Your task to perform on an android device: turn pop-ups on in chrome Image 0: 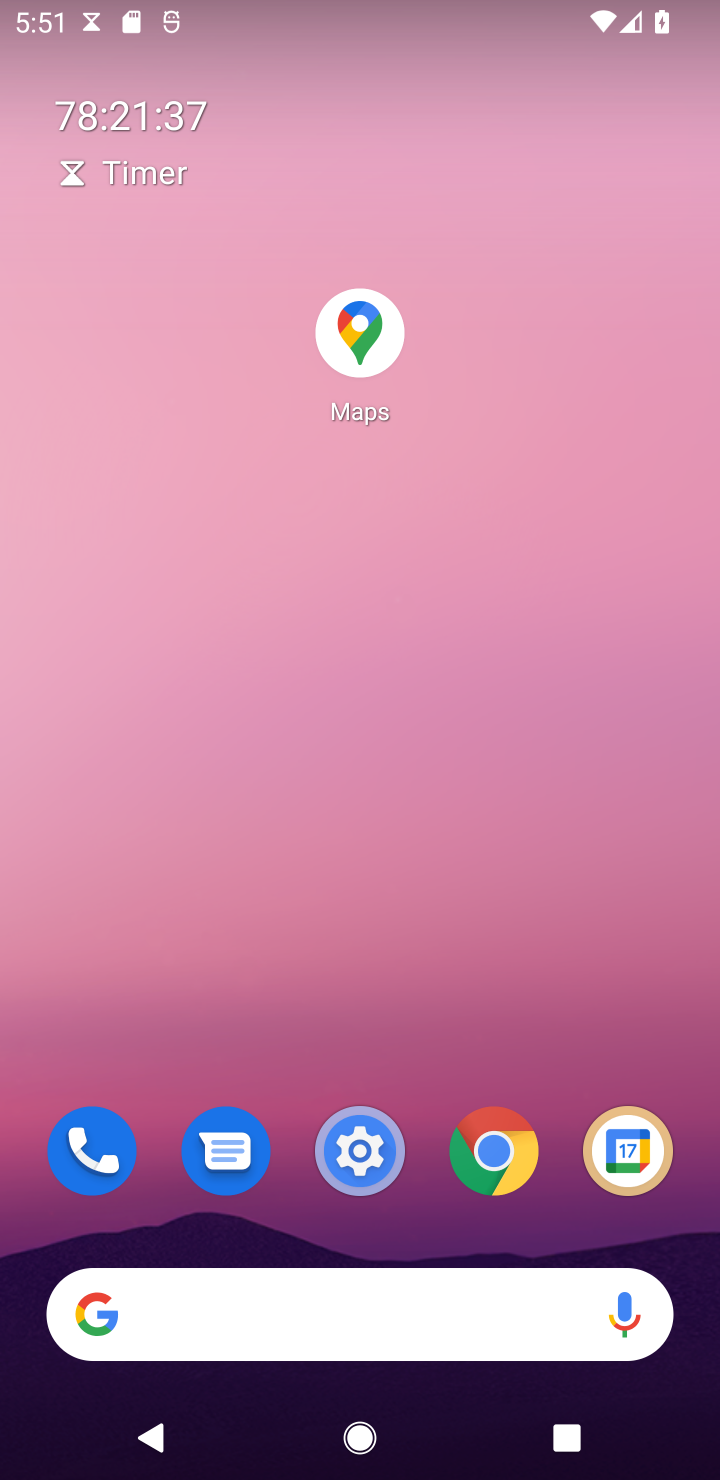
Step 0: click (508, 1172)
Your task to perform on an android device: turn pop-ups on in chrome Image 1: 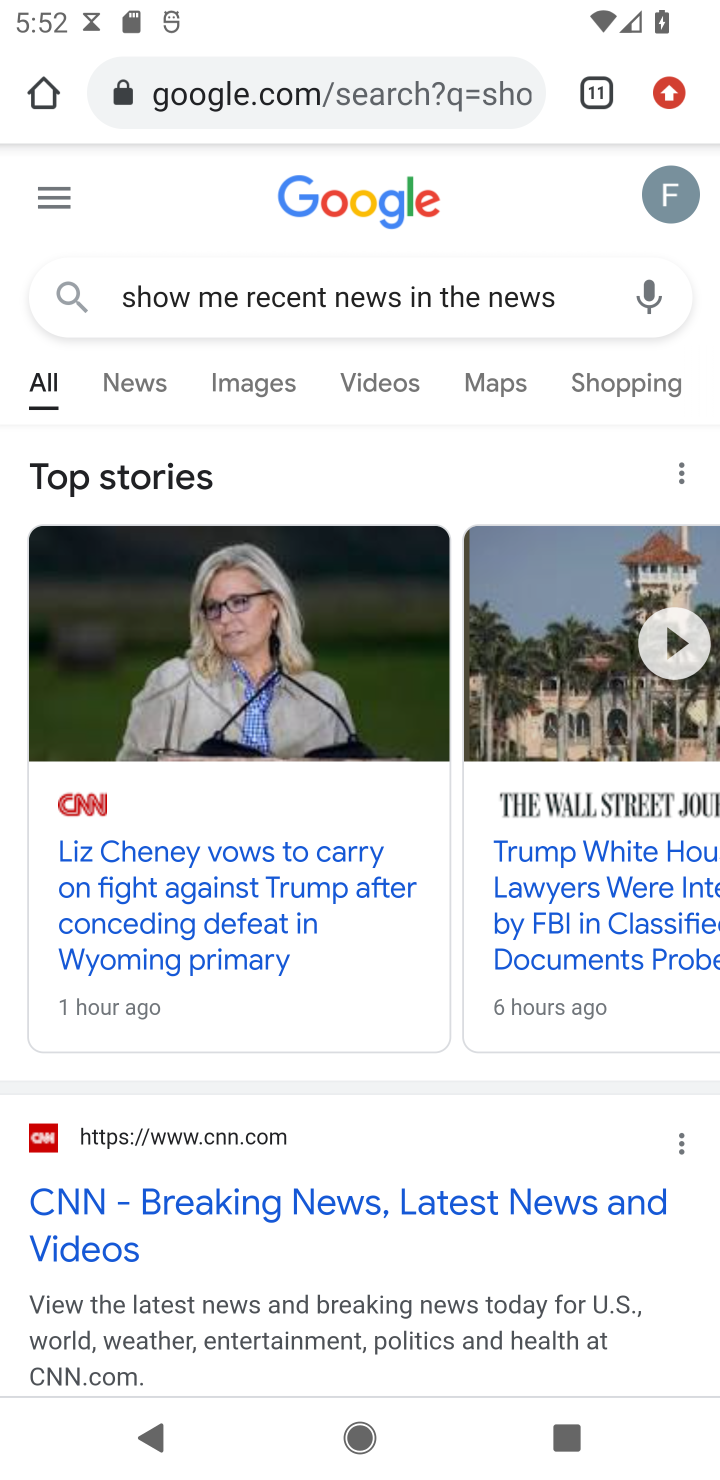
Step 1: click (669, 86)
Your task to perform on an android device: turn pop-ups on in chrome Image 2: 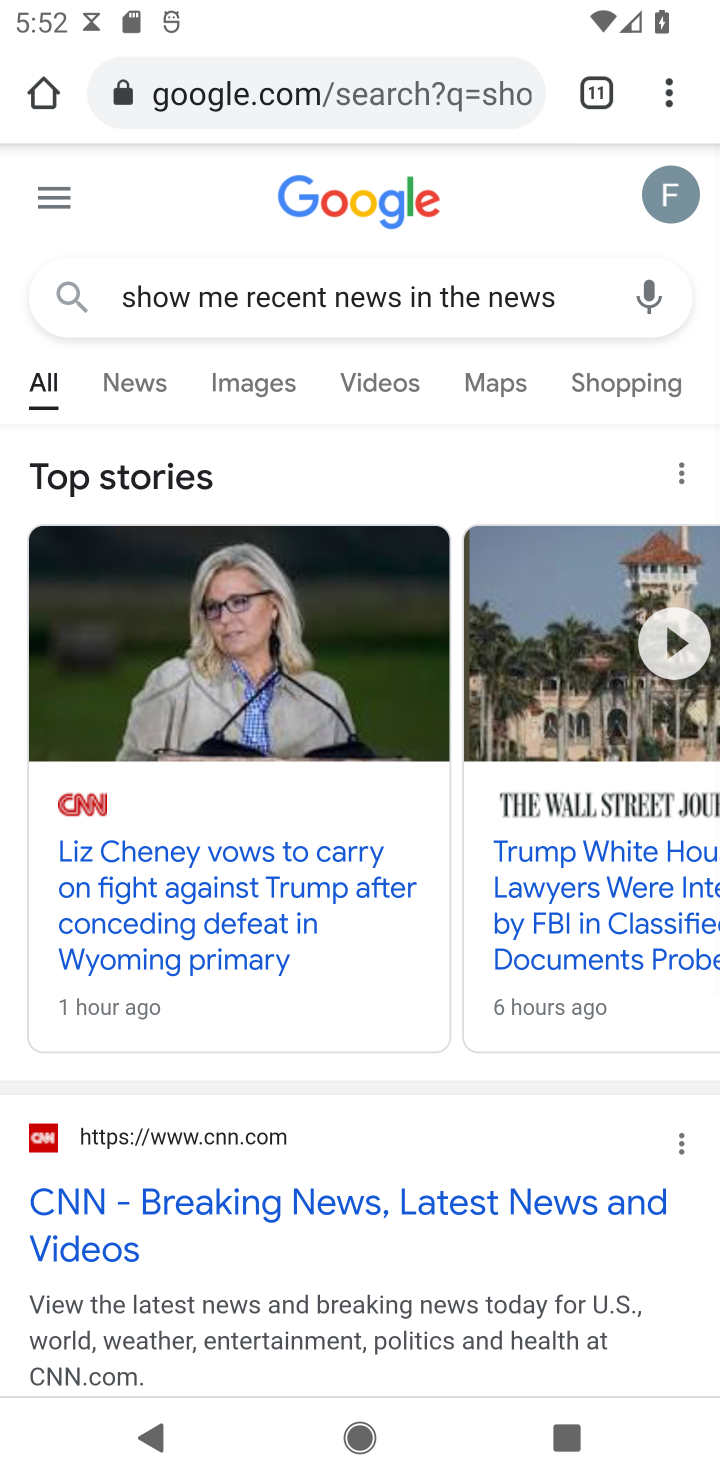
Step 2: click (669, 86)
Your task to perform on an android device: turn pop-ups on in chrome Image 3: 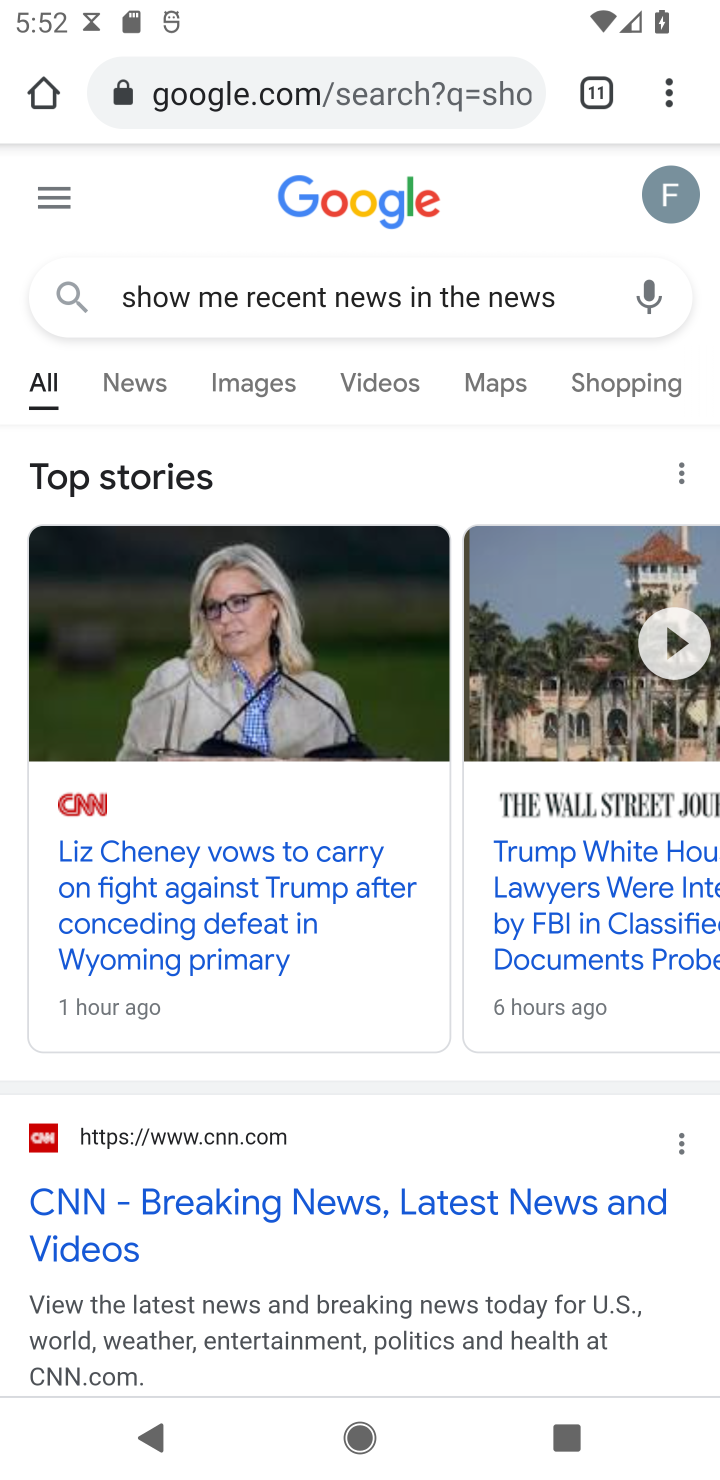
Step 3: click (676, 112)
Your task to perform on an android device: turn pop-ups on in chrome Image 4: 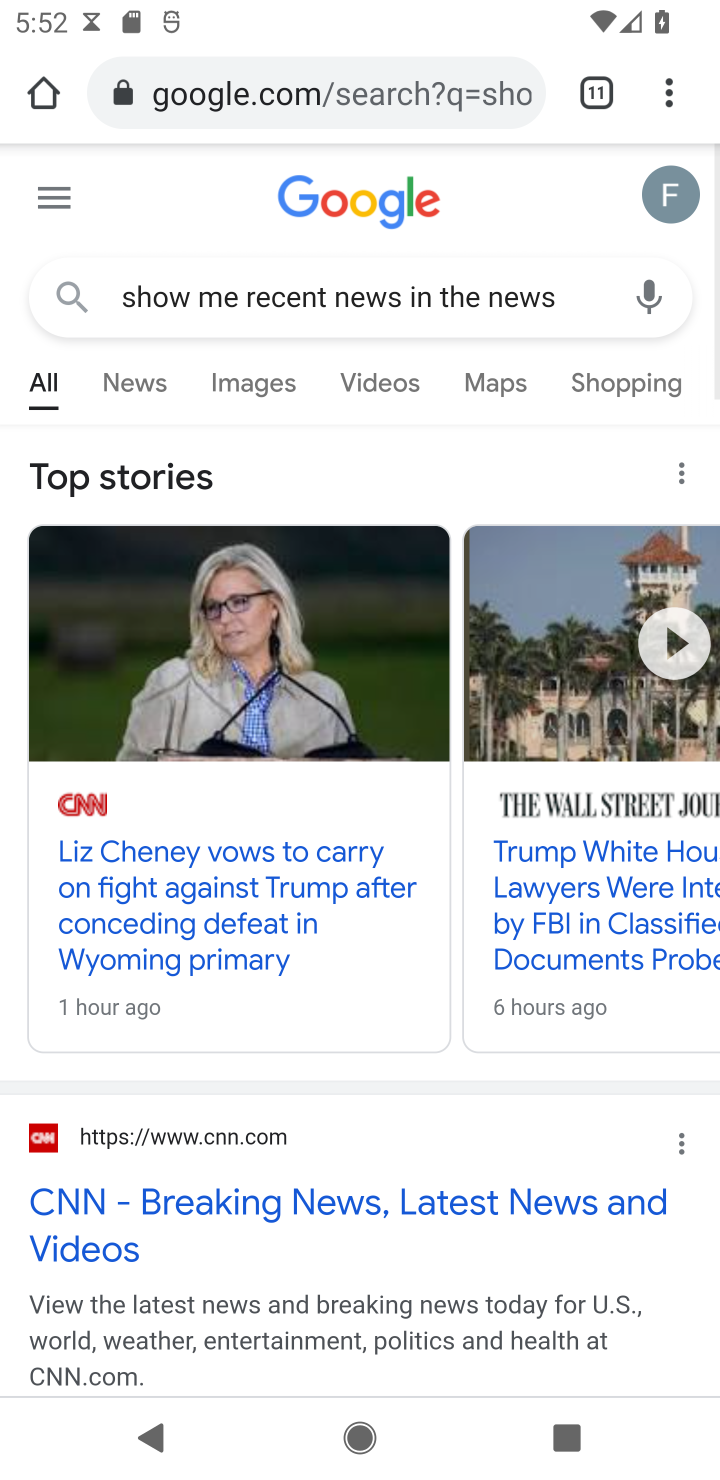
Step 4: click (666, 86)
Your task to perform on an android device: turn pop-ups on in chrome Image 5: 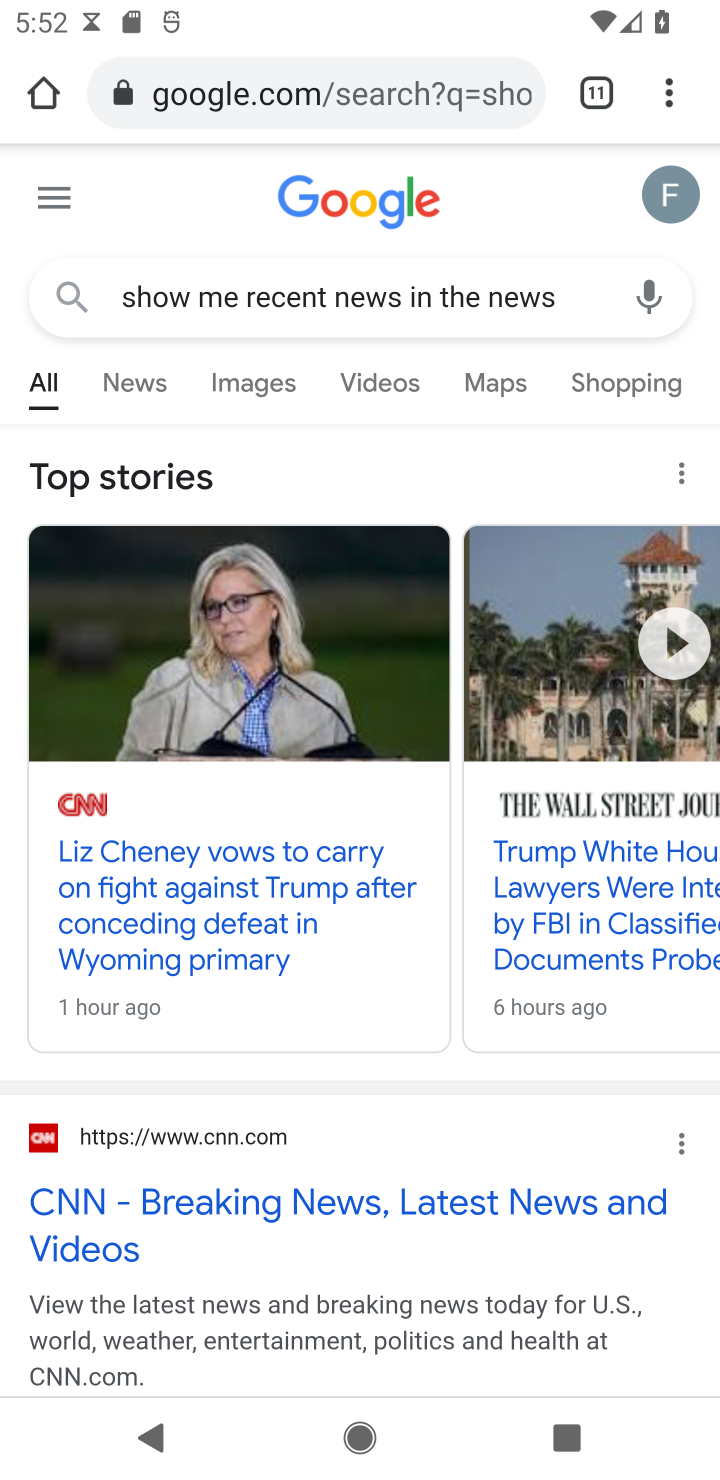
Step 5: click (675, 89)
Your task to perform on an android device: turn pop-ups on in chrome Image 6: 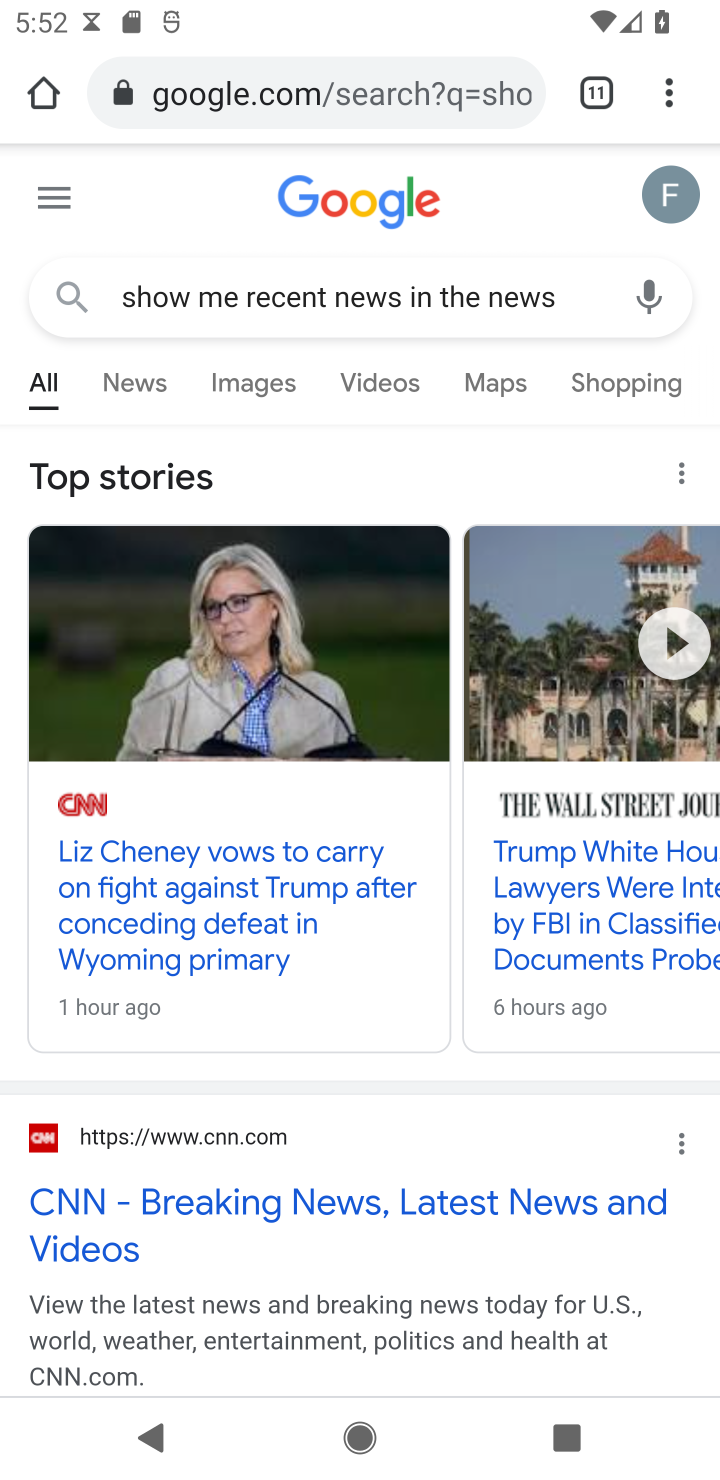
Step 6: click (673, 96)
Your task to perform on an android device: turn pop-ups on in chrome Image 7: 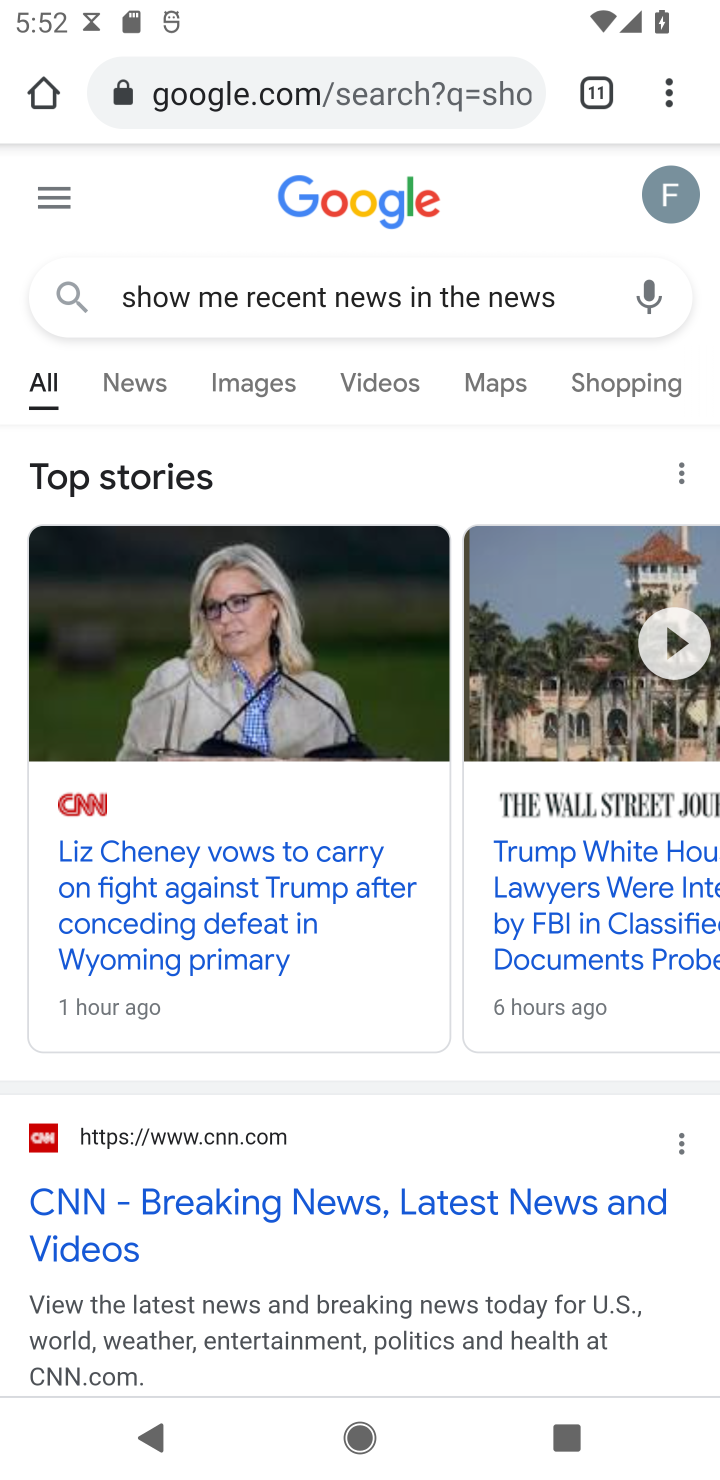
Step 7: click (673, 96)
Your task to perform on an android device: turn pop-ups on in chrome Image 8: 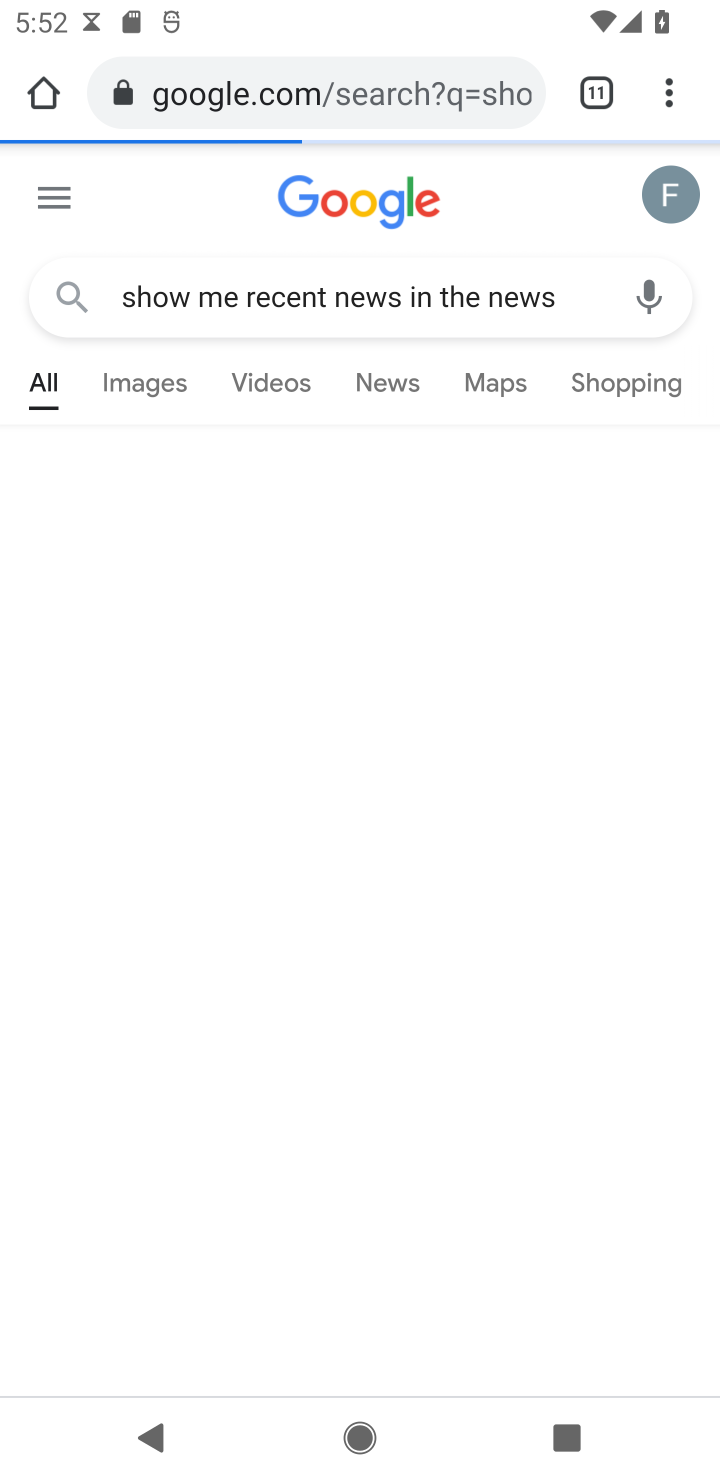
Step 8: click (665, 89)
Your task to perform on an android device: turn pop-ups on in chrome Image 9: 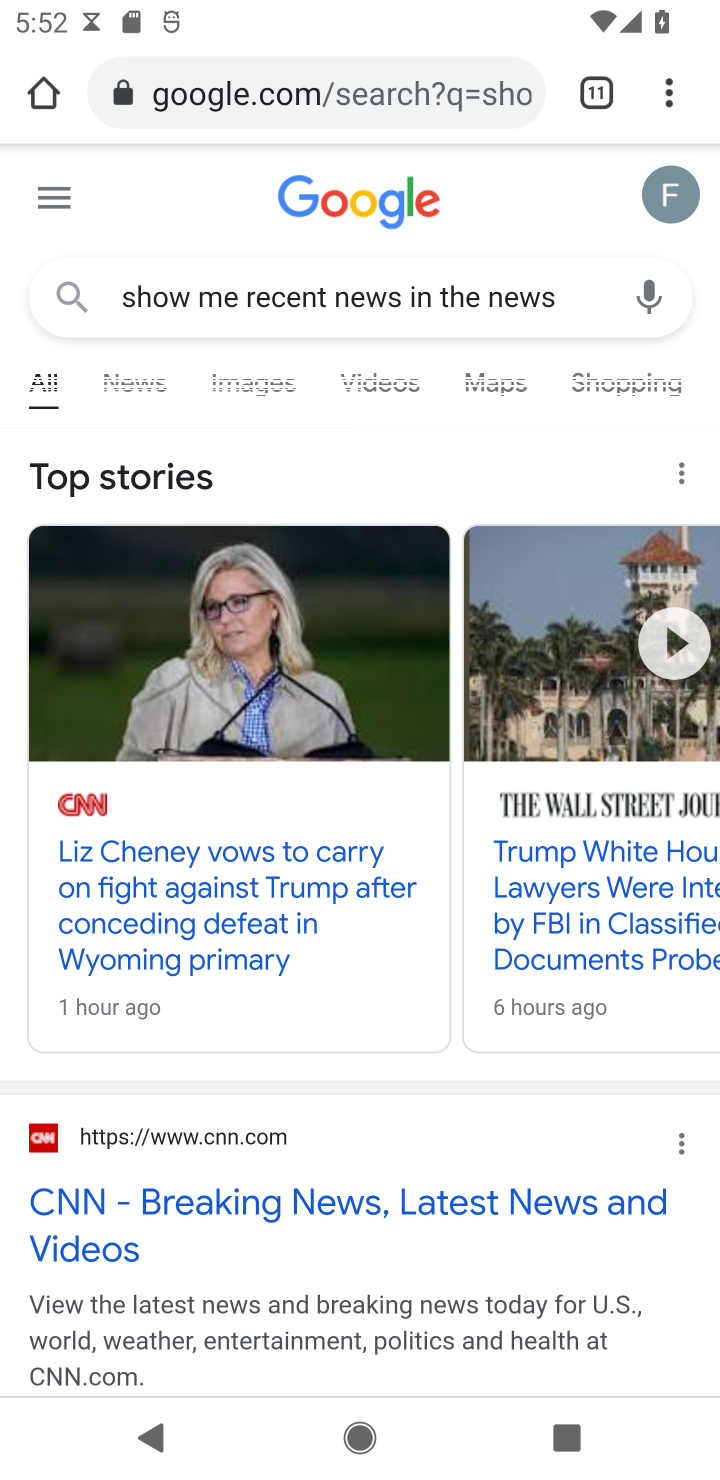
Step 9: click (665, 89)
Your task to perform on an android device: turn pop-ups on in chrome Image 10: 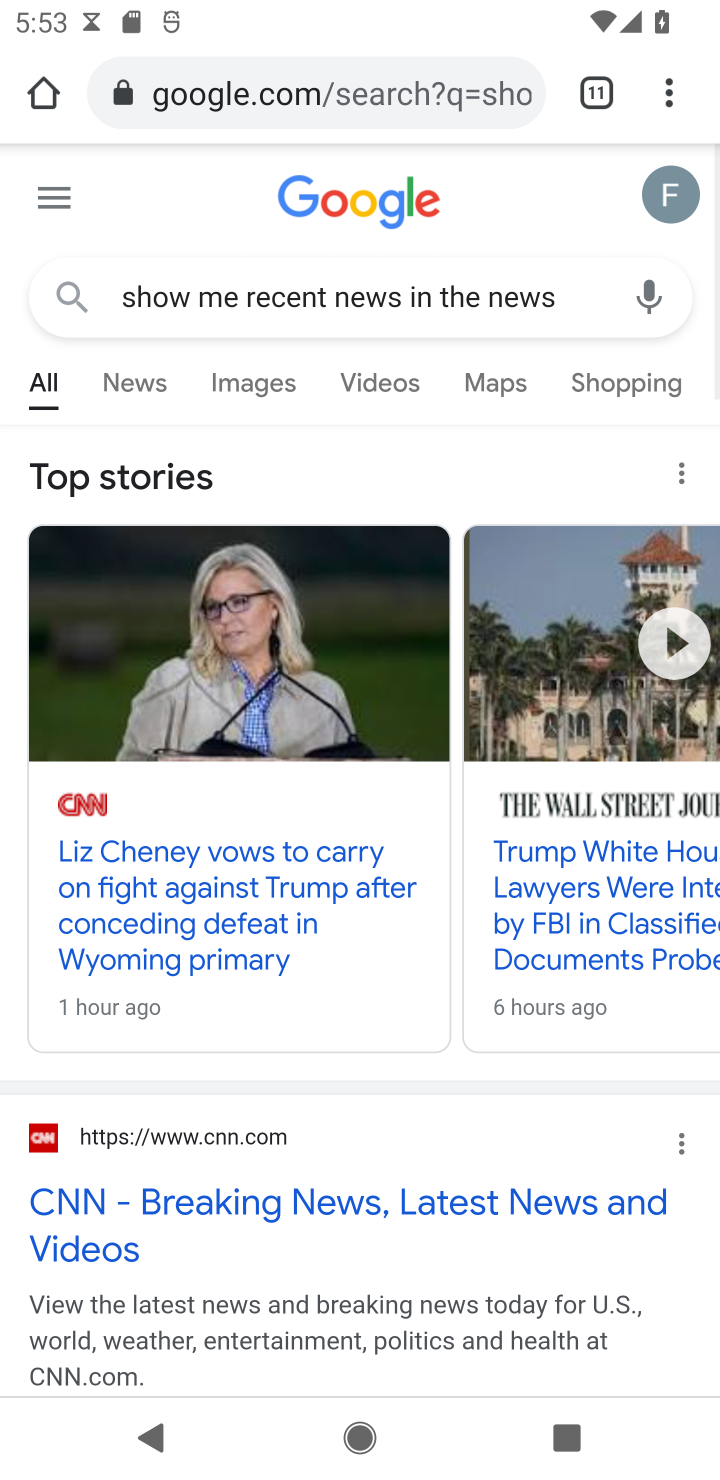
Step 10: click (665, 98)
Your task to perform on an android device: turn pop-ups on in chrome Image 11: 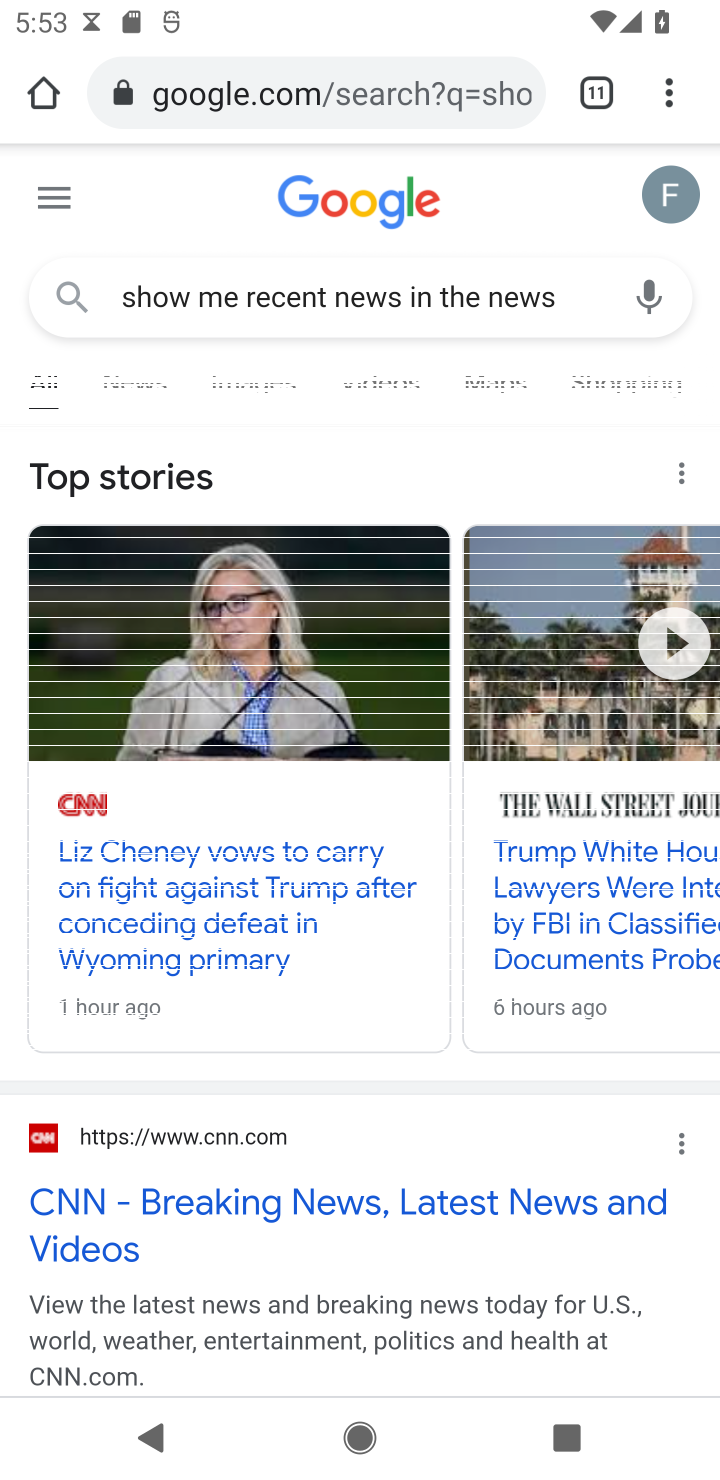
Step 11: task complete